Your task to perform on an android device: turn on bluetooth scan Image 0: 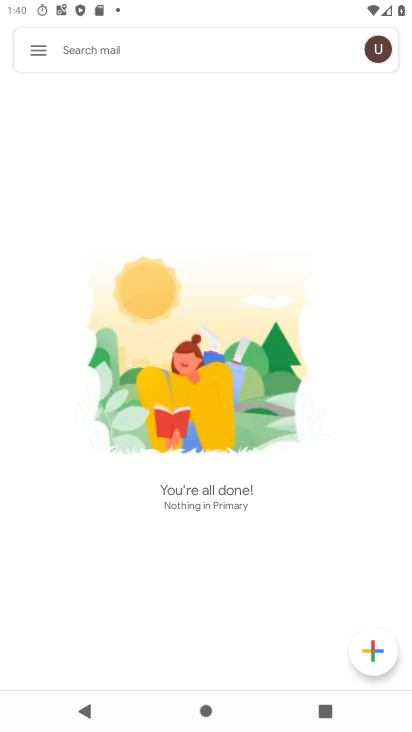
Step 0: press home button
Your task to perform on an android device: turn on bluetooth scan Image 1: 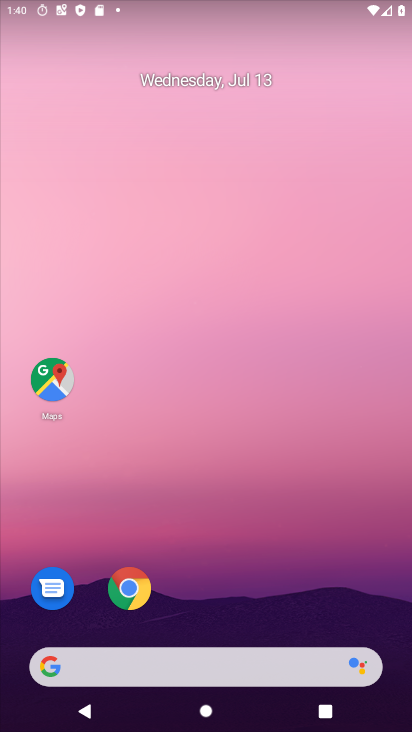
Step 1: drag from (254, 656) to (288, 451)
Your task to perform on an android device: turn on bluetooth scan Image 2: 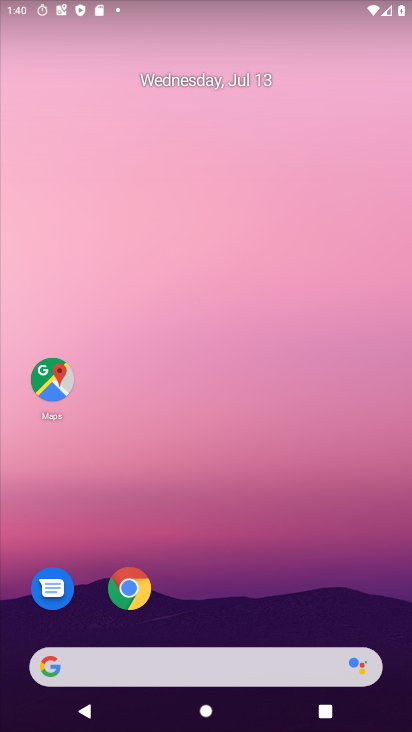
Step 2: drag from (227, 641) to (315, 253)
Your task to perform on an android device: turn on bluetooth scan Image 3: 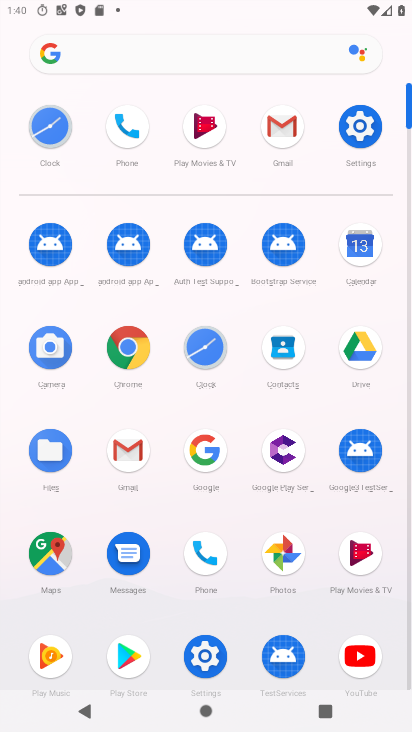
Step 3: click (361, 147)
Your task to perform on an android device: turn on bluetooth scan Image 4: 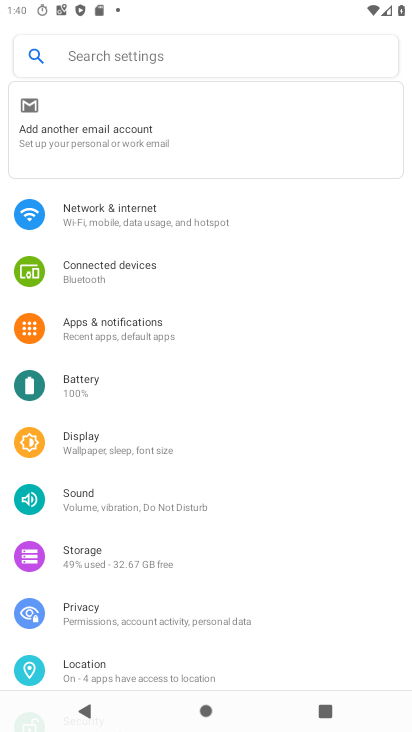
Step 4: click (130, 666)
Your task to perform on an android device: turn on bluetooth scan Image 5: 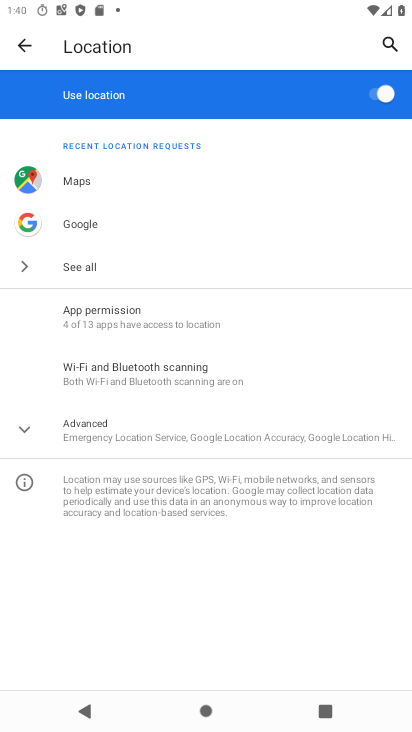
Step 5: click (213, 381)
Your task to perform on an android device: turn on bluetooth scan Image 6: 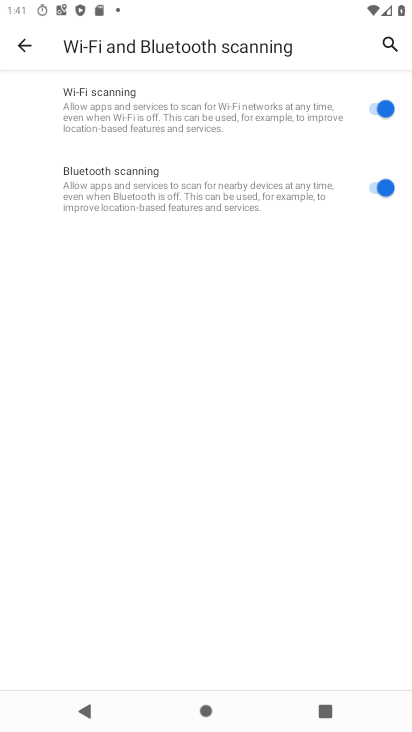
Step 6: task complete